Your task to perform on an android device: turn off notifications settings in the gmail app Image 0: 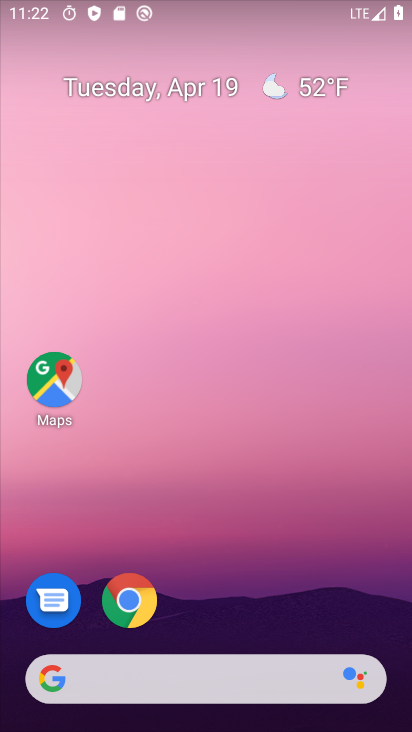
Step 0: drag from (212, 649) to (202, 0)
Your task to perform on an android device: turn off notifications settings in the gmail app Image 1: 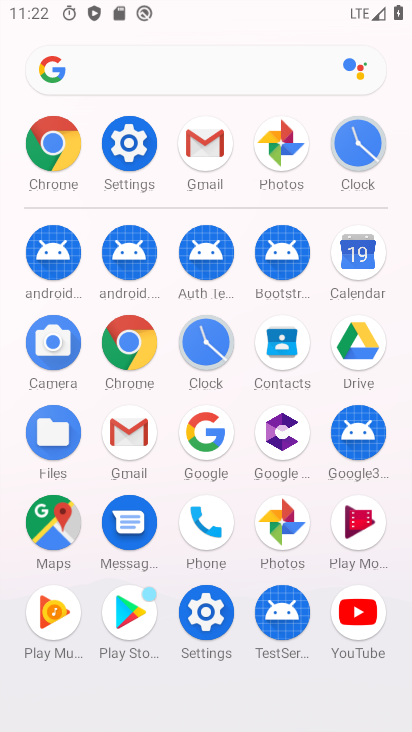
Step 1: click (132, 424)
Your task to perform on an android device: turn off notifications settings in the gmail app Image 2: 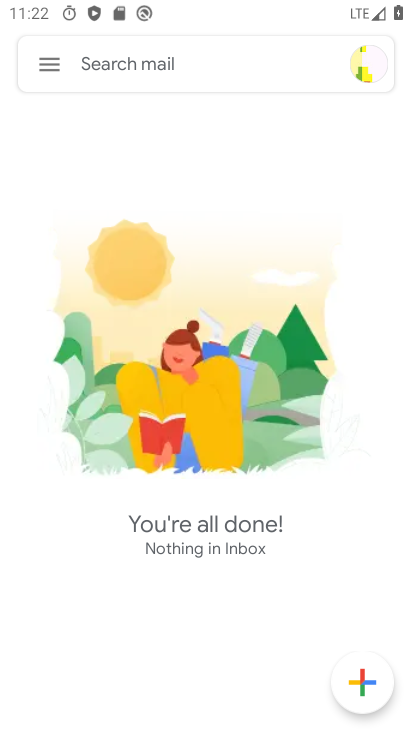
Step 2: click (46, 69)
Your task to perform on an android device: turn off notifications settings in the gmail app Image 3: 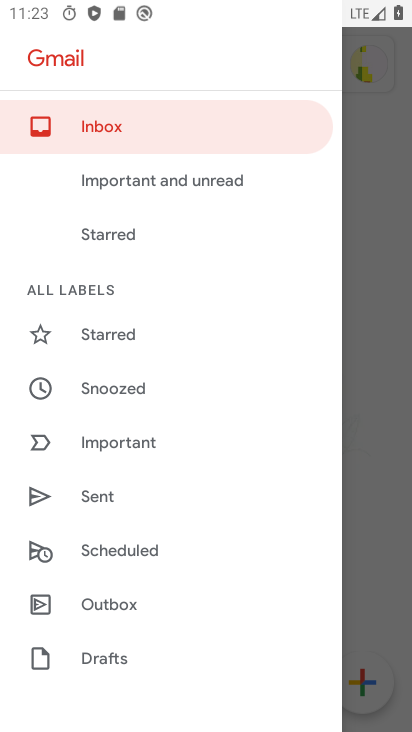
Step 3: drag from (176, 636) to (142, 140)
Your task to perform on an android device: turn off notifications settings in the gmail app Image 4: 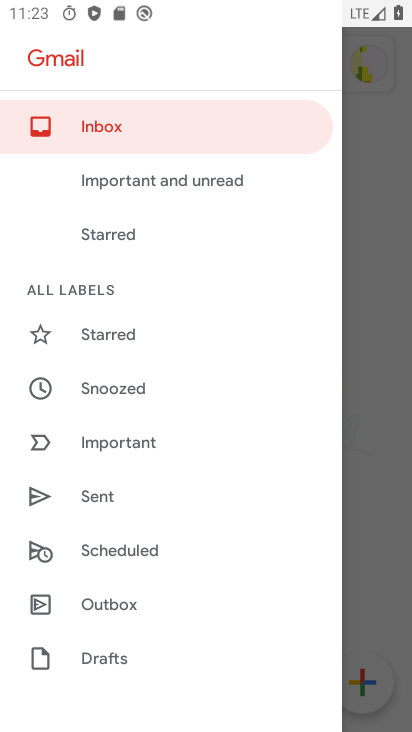
Step 4: drag from (190, 615) to (186, 111)
Your task to perform on an android device: turn off notifications settings in the gmail app Image 5: 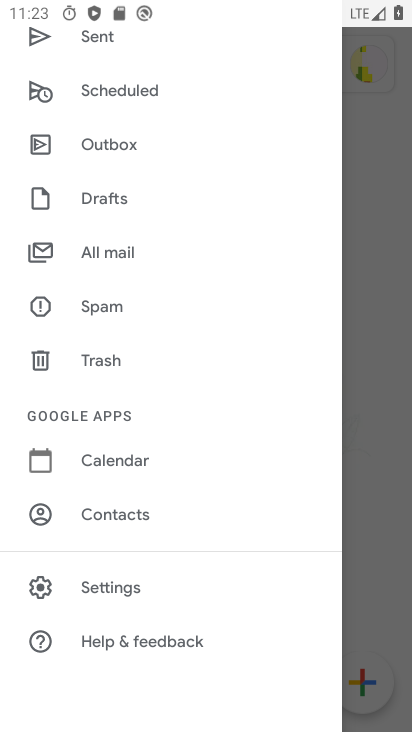
Step 5: click (97, 582)
Your task to perform on an android device: turn off notifications settings in the gmail app Image 6: 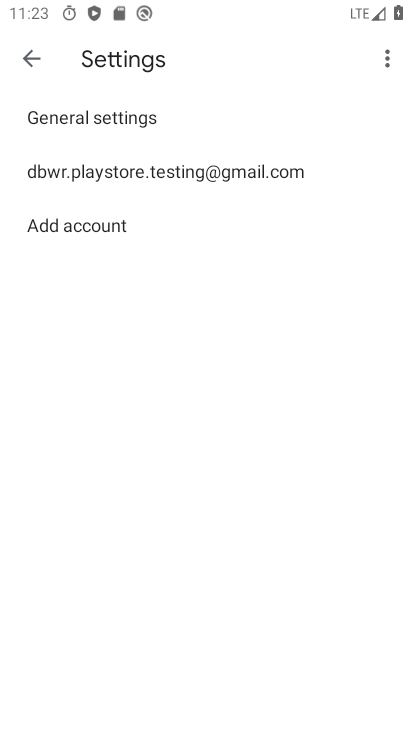
Step 6: click (118, 124)
Your task to perform on an android device: turn off notifications settings in the gmail app Image 7: 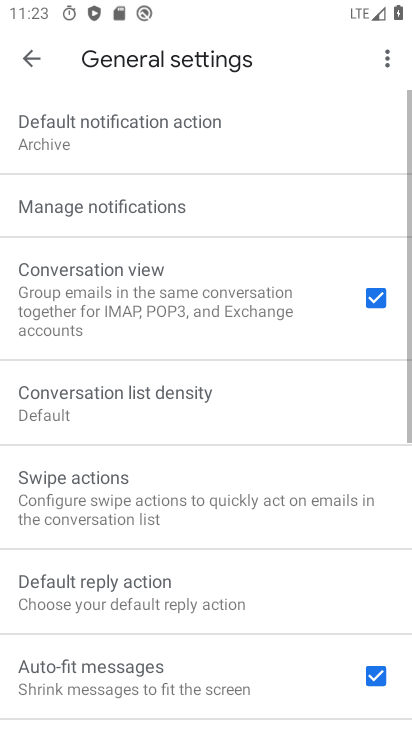
Step 7: click (209, 199)
Your task to perform on an android device: turn off notifications settings in the gmail app Image 8: 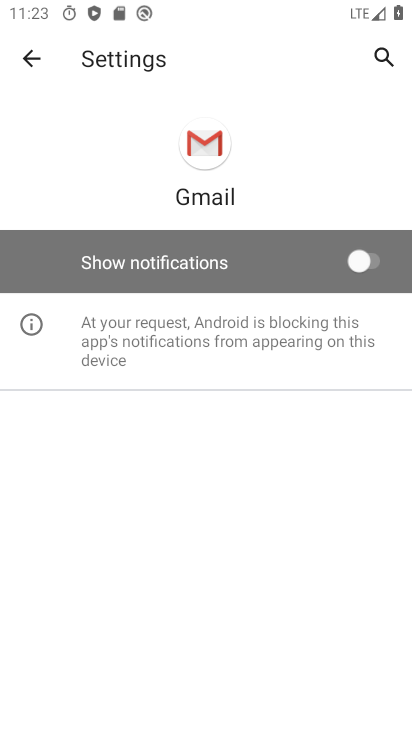
Step 8: task complete